Your task to perform on an android device: Open Google Maps Image 0: 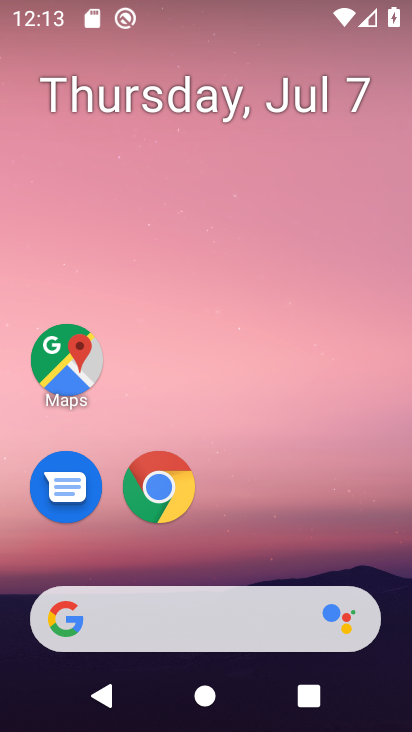
Step 0: drag from (327, 539) to (305, 146)
Your task to perform on an android device: Open Google Maps Image 1: 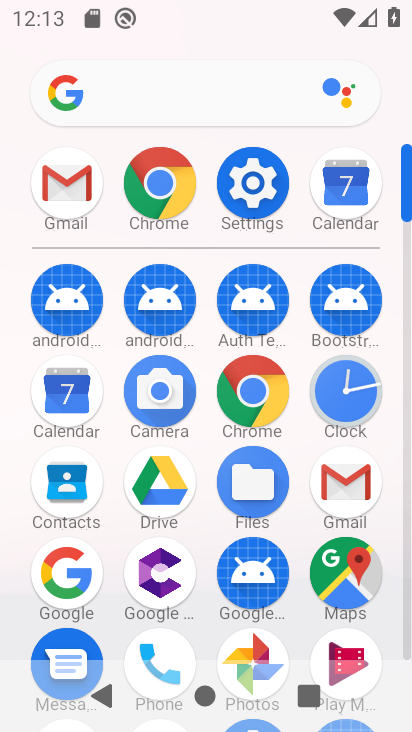
Step 1: click (352, 570)
Your task to perform on an android device: Open Google Maps Image 2: 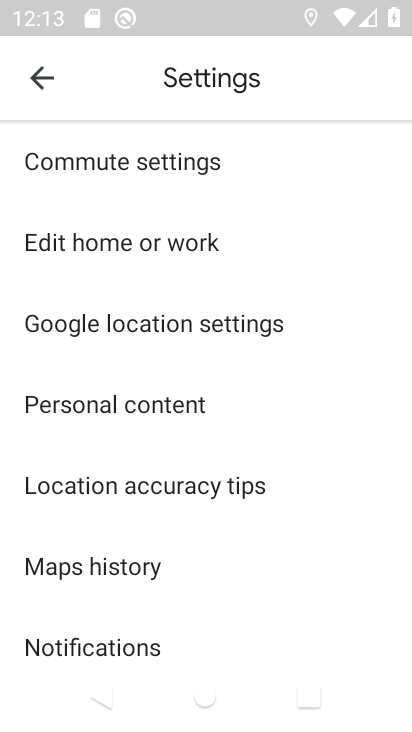
Step 2: click (41, 76)
Your task to perform on an android device: Open Google Maps Image 3: 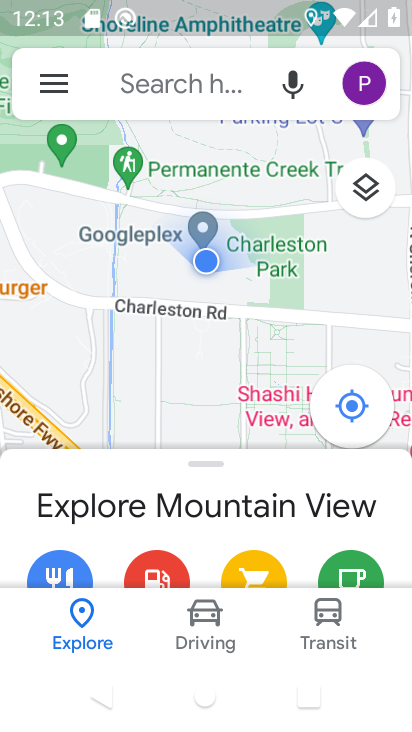
Step 3: task complete